Your task to perform on an android device: Do I have any events this weekend? Image 0: 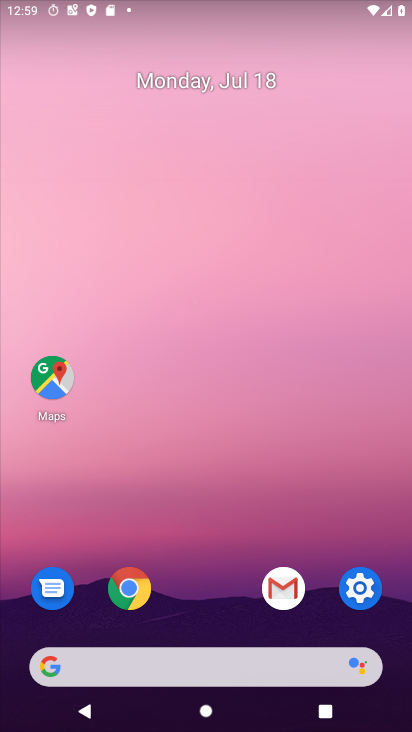
Step 0: drag from (234, 688) to (210, 145)
Your task to perform on an android device: Do I have any events this weekend? Image 1: 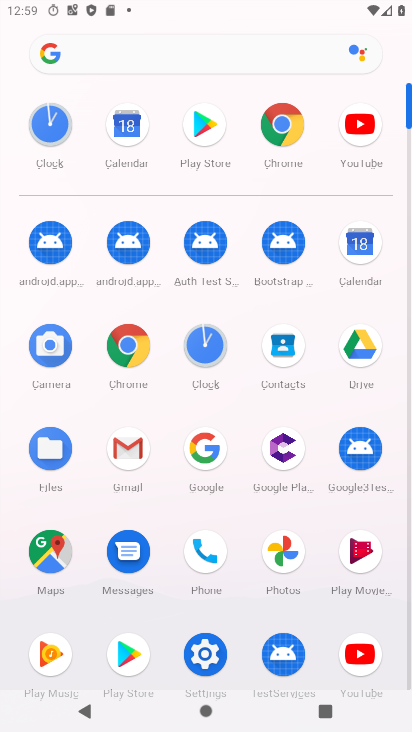
Step 1: click (371, 245)
Your task to perform on an android device: Do I have any events this weekend? Image 2: 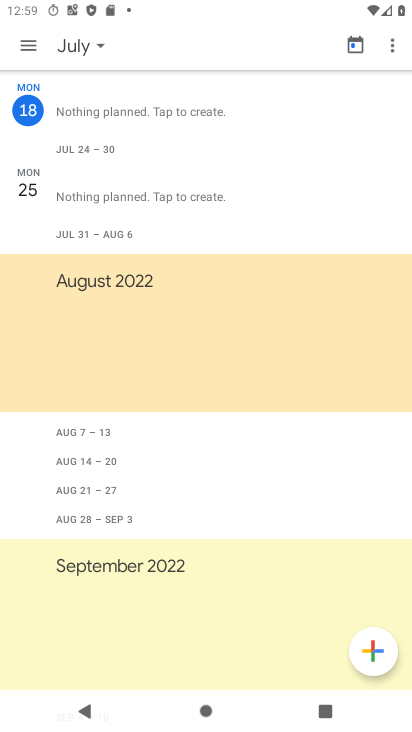
Step 2: click (20, 44)
Your task to perform on an android device: Do I have any events this weekend? Image 3: 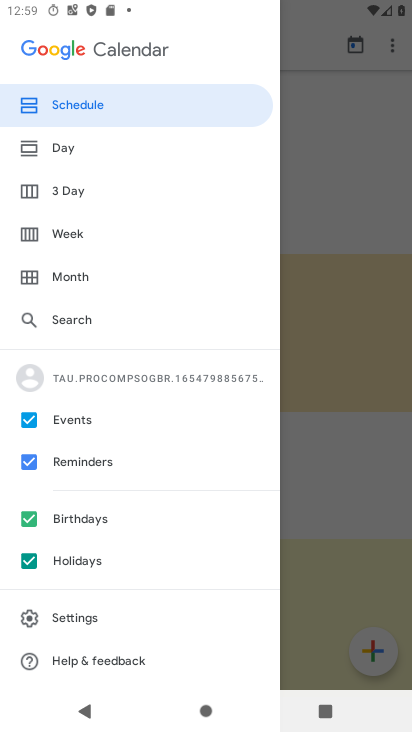
Step 3: click (78, 283)
Your task to perform on an android device: Do I have any events this weekend? Image 4: 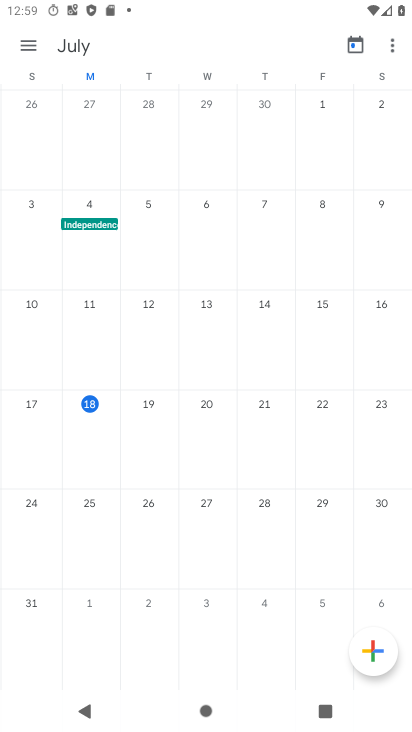
Step 4: click (90, 416)
Your task to perform on an android device: Do I have any events this weekend? Image 5: 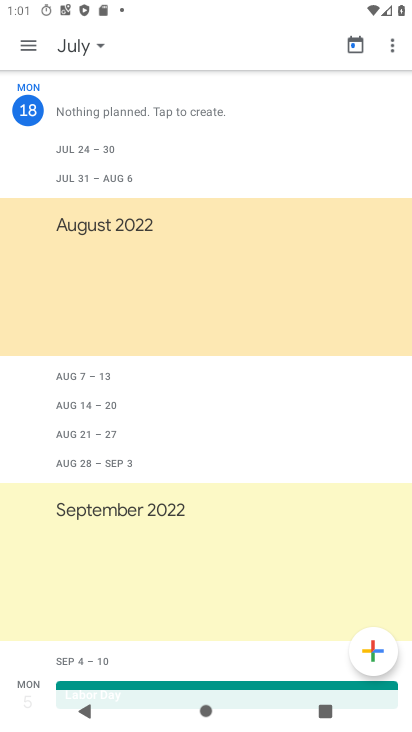
Step 5: task complete